Your task to perform on an android device: Open calendar and show me the first week of next month Image 0: 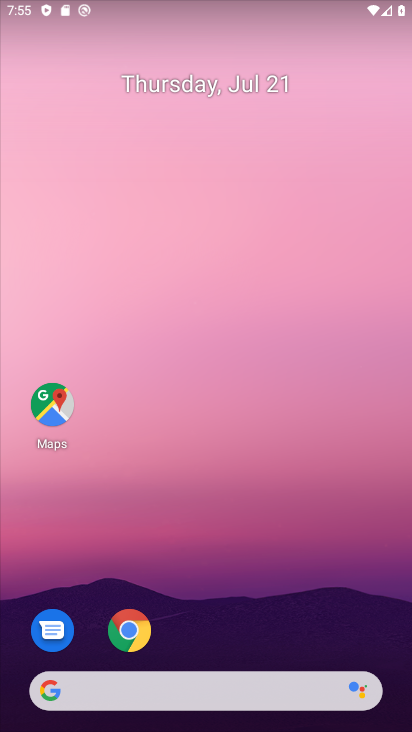
Step 0: drag from (295, 638) to (363, 24)
Your task to perform on an android device: Open calendar and show me the first week of next month Image 1: 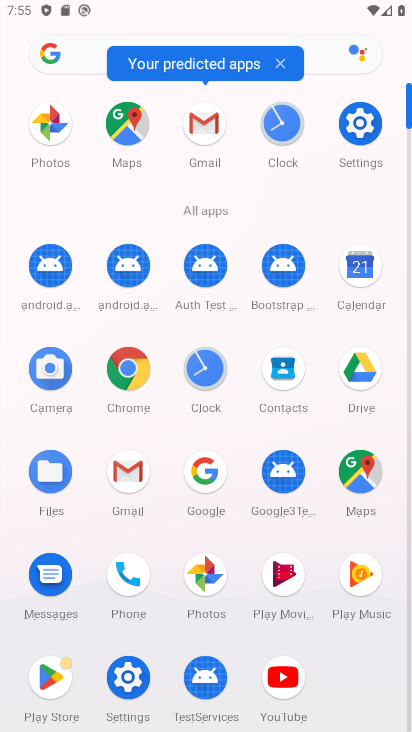
Step 1: click (371, 274)
Your task to perform on an android device: Open calendar and show me the first week of next month Image 2: 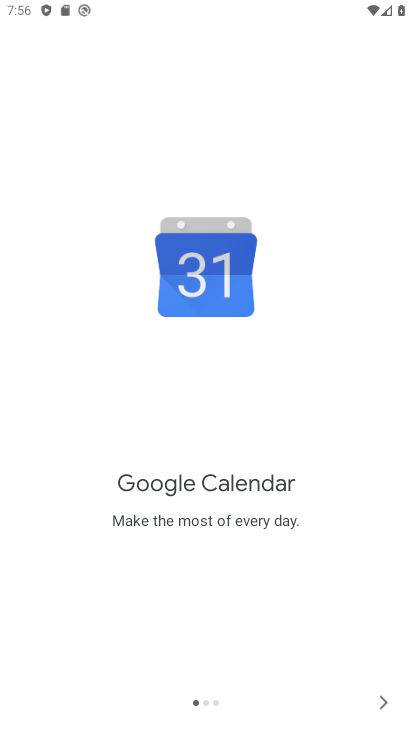
Step 2: click (382, 703)
Your task to perform on an android device: Open calendar and show me the first week of next month Image 3: 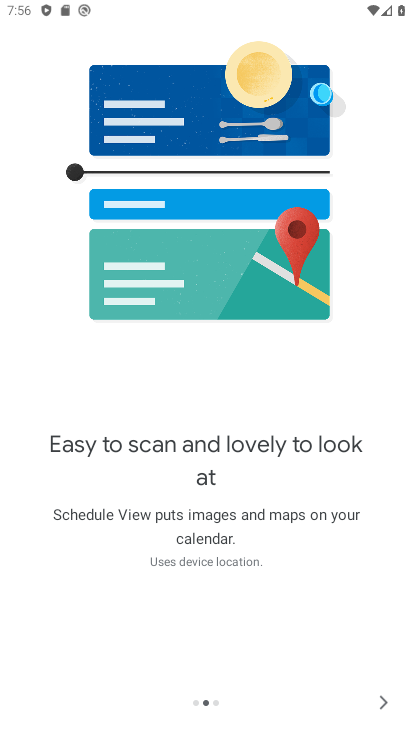
Step 3: click (382, 703)
Your task to perform on an android device: Open calendar and show me the first week of next month Image 4: 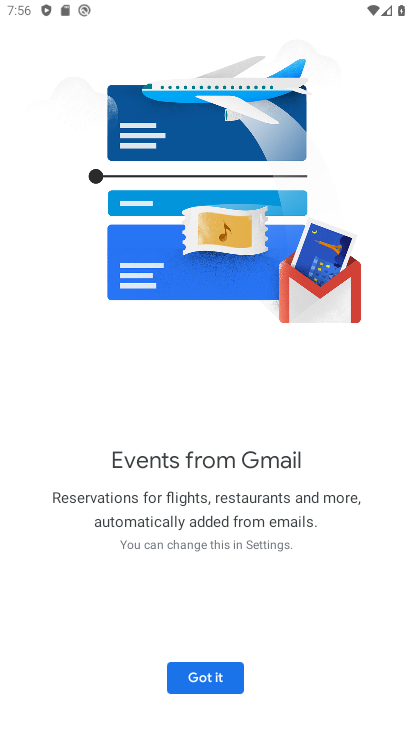
Step 4: click (190, 681)
Your task to perform on an android device: Open calendar and show me the first week of next month Image 5: 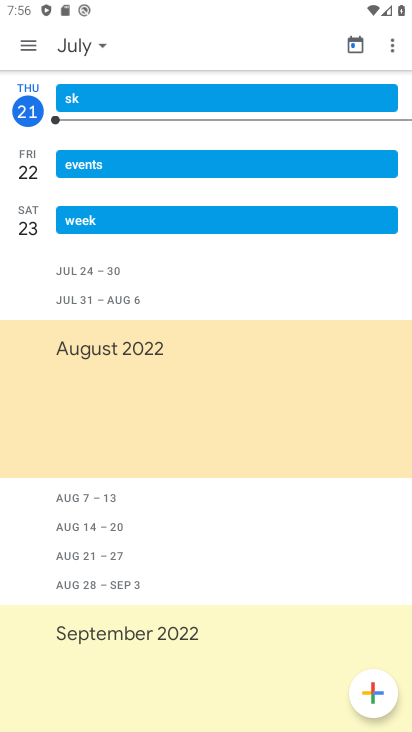
Step 5: click (81, 38)
Your task to perform on an android device: Open calendar and show me the first week of next month Image 6: 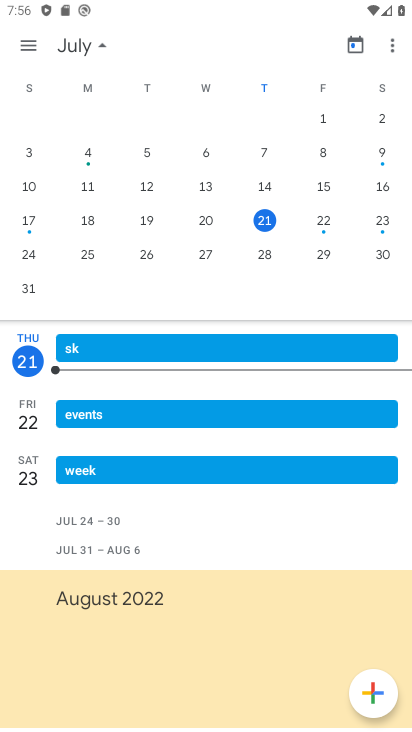
Step 6: task complete